Your task to perform on an android device: uninstall "Pluto TV - Live TV and Movies" Image 0: 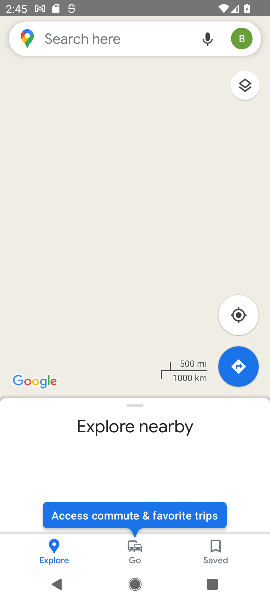
Step 0: press home button
Your task to perform on an android device: uninstall "Pluto TV - Live TV and Movies" Image 1: 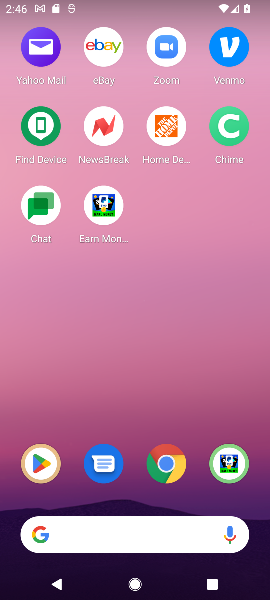
Step 1: press home button
Your task to perform on an android device: uninstall "Pluto TV - Live TV and Movies" Image 2: 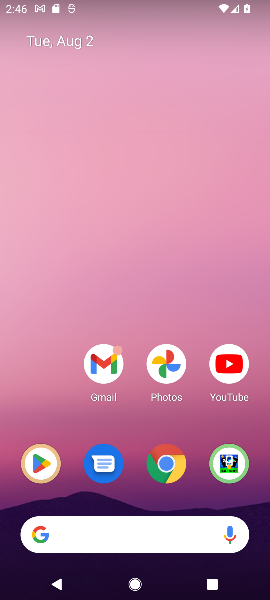
Step 2: click (35, 468)
Your task to perform on an android device: uninstall "Pluto TV - Live TV and Movies" Image 3: 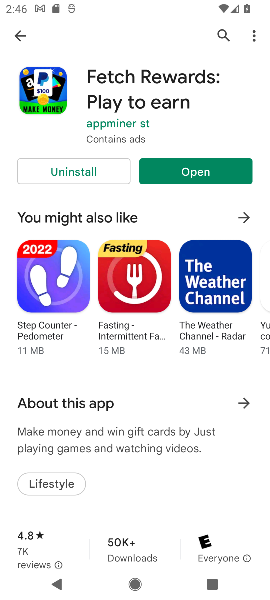
Step 3: click (216, 35)
Your task to perform on an android device: uninstall "Pluto TV - Live TV and Movies" Image 4: 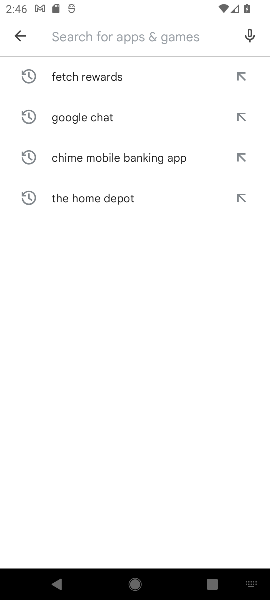
Step 4: type "Pluto TV - Live TV and Movies"
Your task to perform on an android device: uninstall "Pluto TV - Live TV and Movies" Image 5: 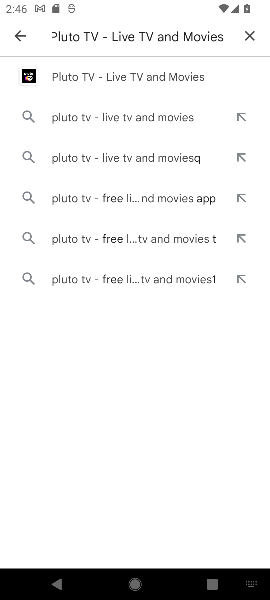
Step 5: click (134, 76)
Your task to perform on an android device: uninstall "Pluto TV - Live TV and Movies" Image 6: 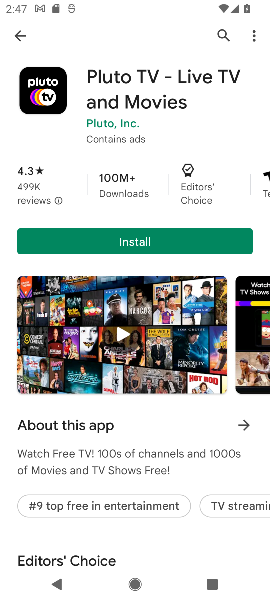
Step 6: task complete